Your task to perform on an android device: Show me the alarms in the clock app Image 0: 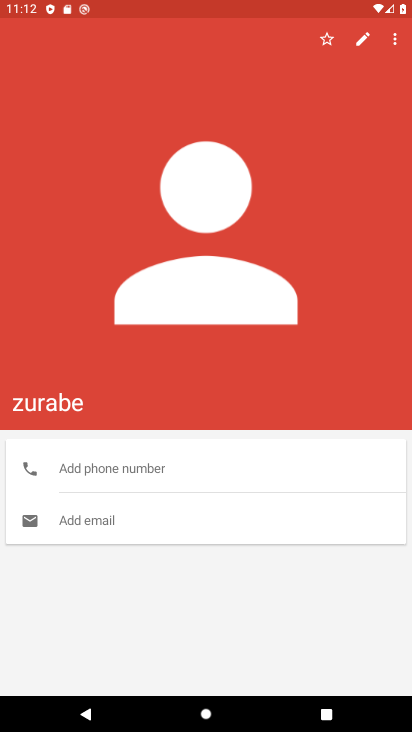
Step 0: press home button
Your task to perform on an android device: Show me the alarms in the clock app Image 1: 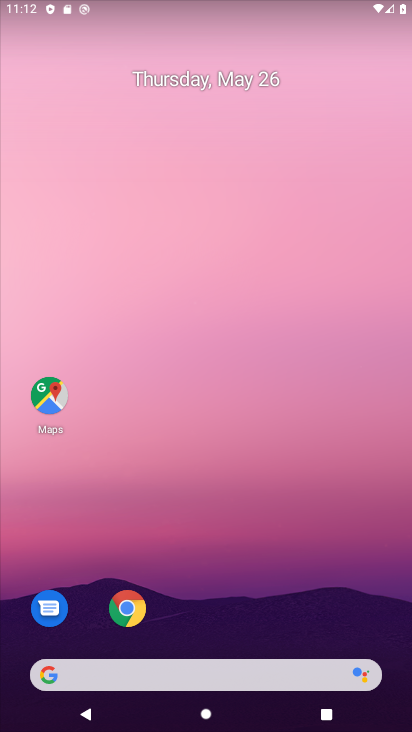
Step 1: drag from (228, 612) to (311, 118)
Your task to perform on an android device: Show me the alarms in the clock app Image 2: 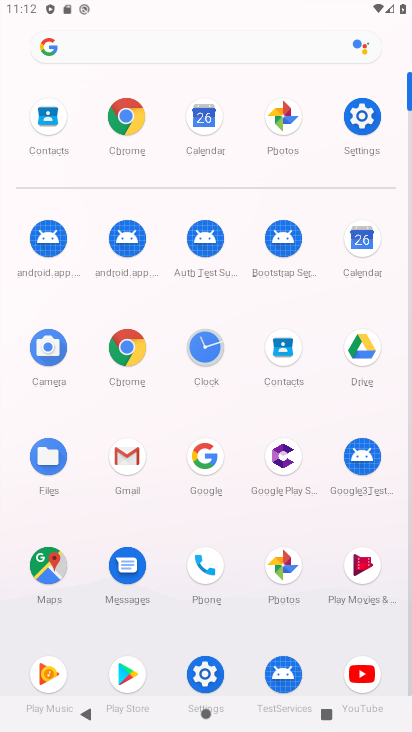
Step 2: click (215, 340)
Your task to perform on an android device: Show me the alarms in the clock app Image 3: 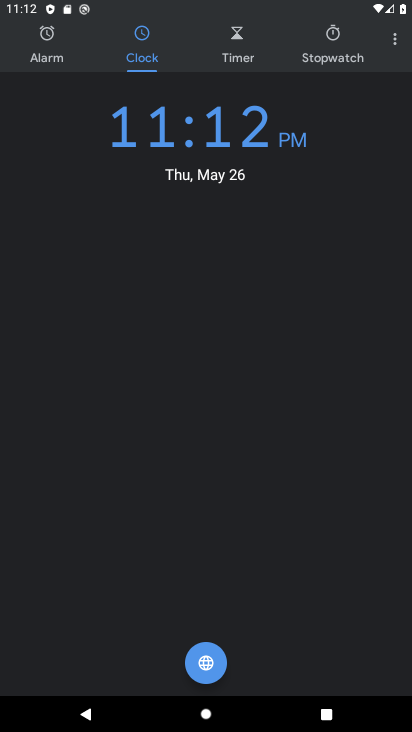
Step 3: drag from (396, 48) to (350, 160)
Your task to perform on an android device: Show me the alarms in the clock app Image 4: 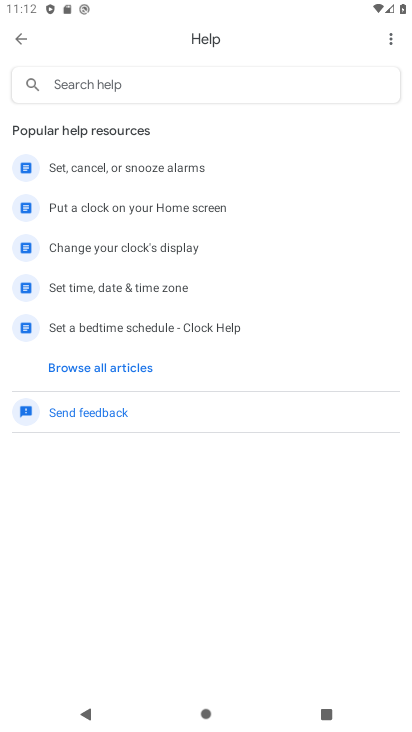
Step 4: press back button
Your task to perform on an android device: Show me the alarms in the clock app Image 5: 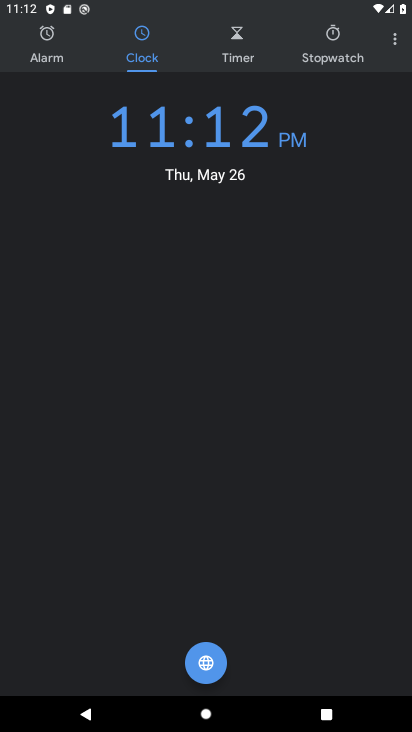
Step 5: click (65, 42)
Your task to perform on an android device: Show me the alarms in the clock app Image 6: 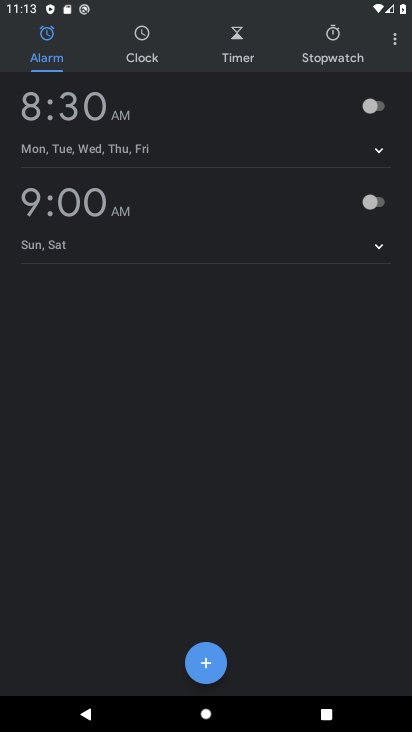
Step 6: task complete